Your task to perform on an android device: Go to ESPN.com Image 0: 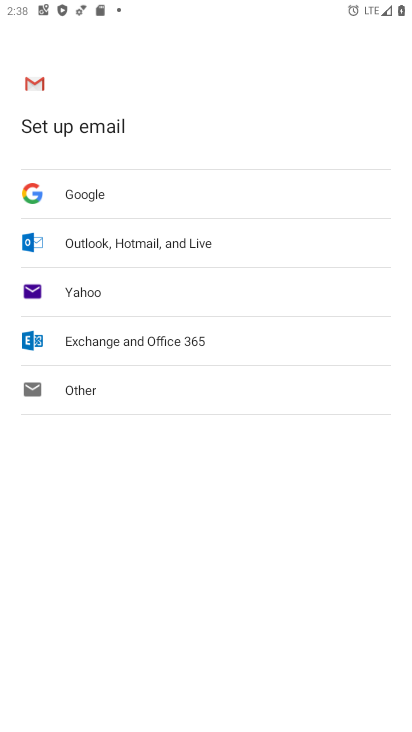
Step 0: press home button
Your task to perform on an android device: Go to ESPN.com Image 1: 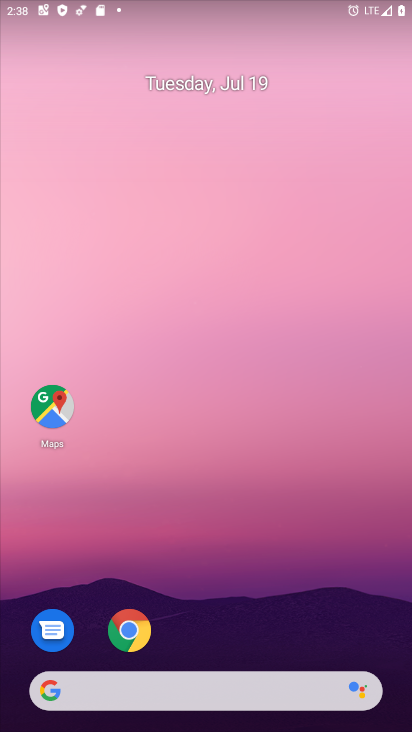
Step 1: click (122, 623)
Your task to perform on an android device: Go to ESPN.com Image 2: 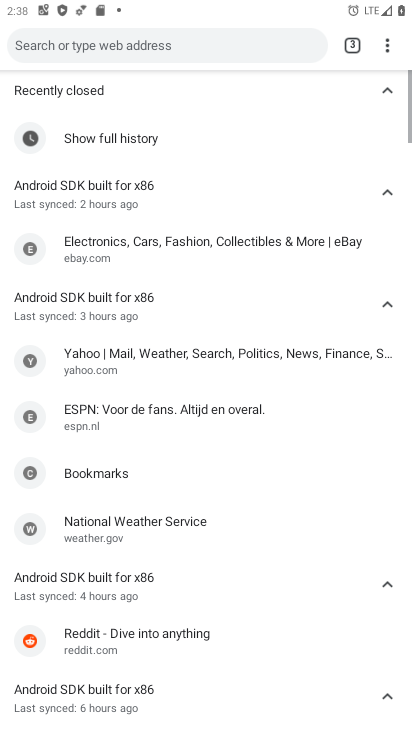
Step 2: click (358, 46)
Your task to perform on an android device: Go to ESPN.com Image 3: 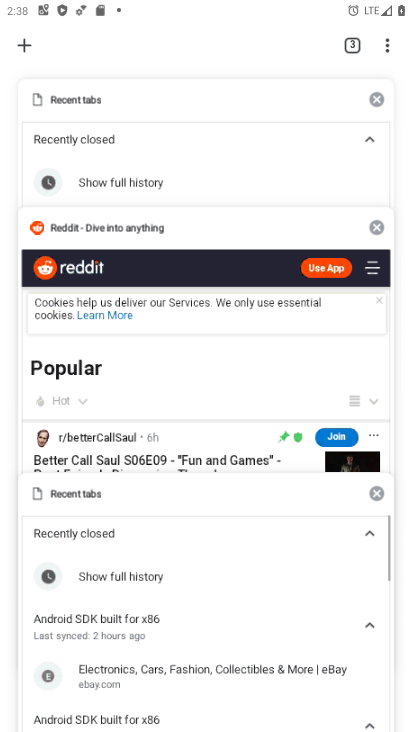
Step 3: click (377, 97)
Your task to perform on an android device: Go to ESPN.com Image 4: 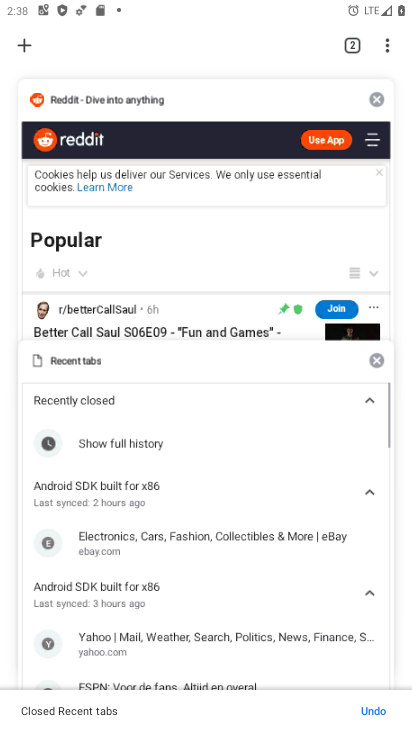
Step 4: click (374, 96)
Your task to perform on an android device: Go to ESPN.com Image 5: 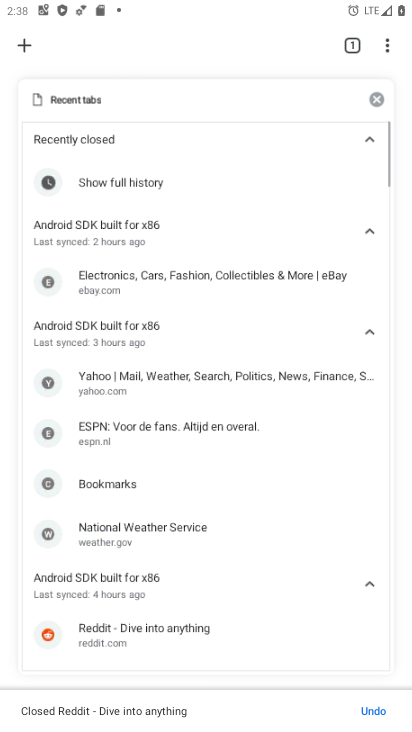
Step 5: click (375, 91)
Your task to perform on an android device: Go to ESPN.com Image 6: 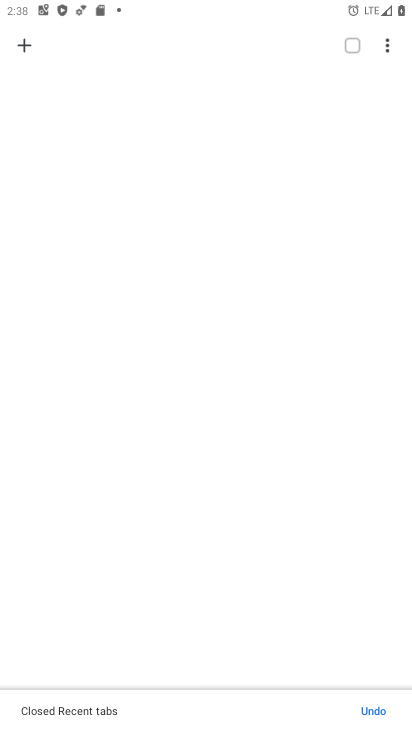
Step 6: click (27, 47)
Your task to perform on an android device: Go to ESPN.com Image 7: 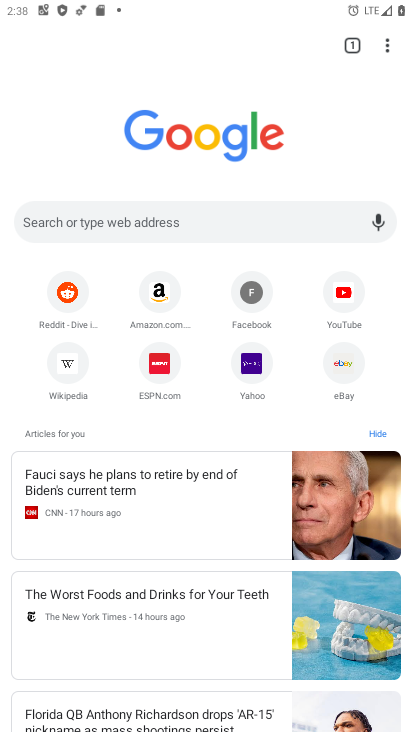
Step 7: click (154, 356)
Your task to perform on an android device: Go to ESPN.com Image 8: 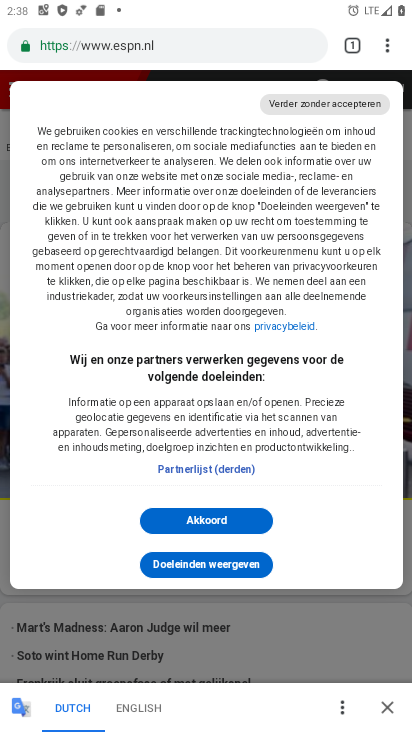
Step 8: click (213, 521)
Your task to perform on an android device: Go to ESPN.com Image 9: 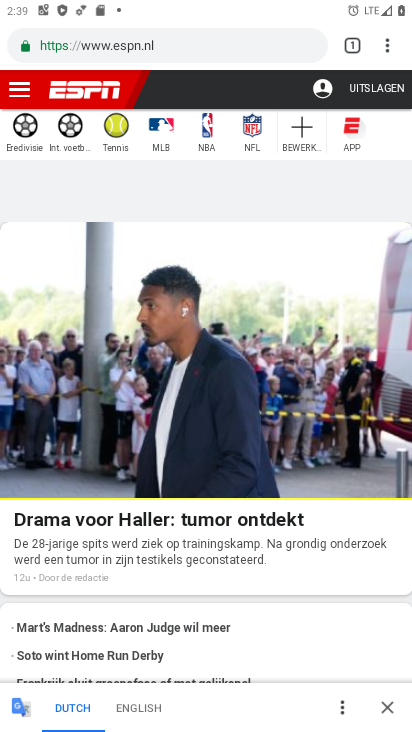
Step 9: task complete